Your task to perform on an android device: see sites visited before in the chrome app Image 0: 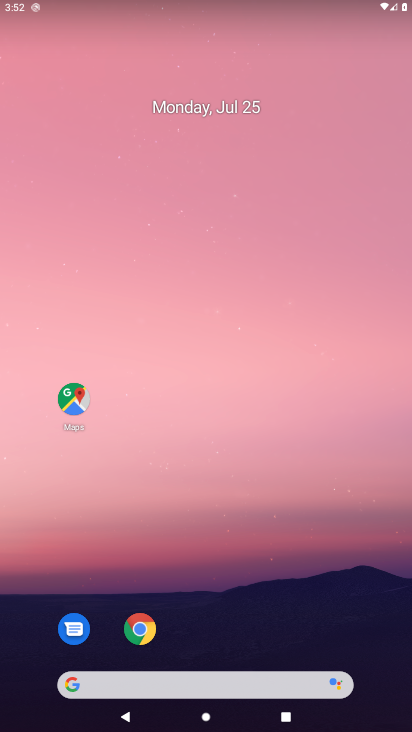
Step 0: click (132, 622)
Your task to perform on an android device: see sites visited before in the chrome app Image 1: 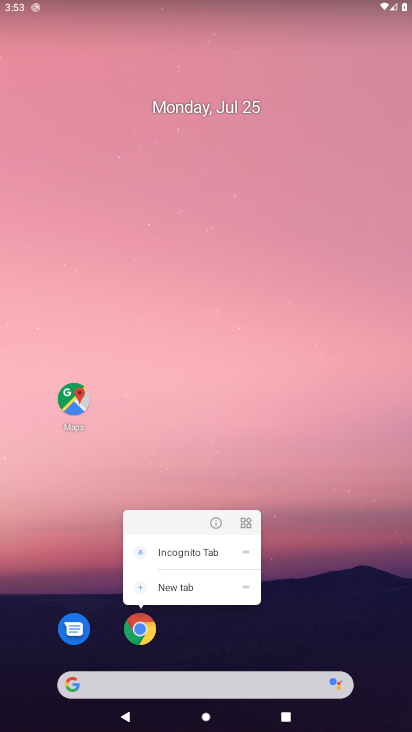
Step 1: click (162, 637)
Your task to perform on an android device: see sites visited before in the chrome app Image 2: 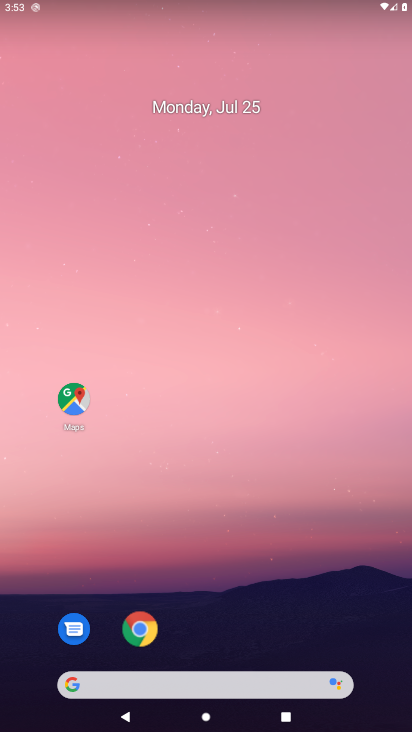
Step 2: click (151, 628)
Your task to perform on an android device: see sites visited before in the chrome app Image 3: 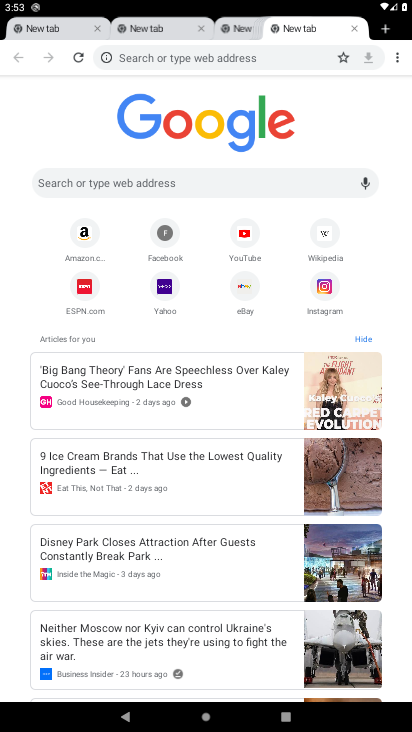
Step 3: click (399, 52)
Your task to perform on an android device: see sites visited before in the chrome app Image 4: 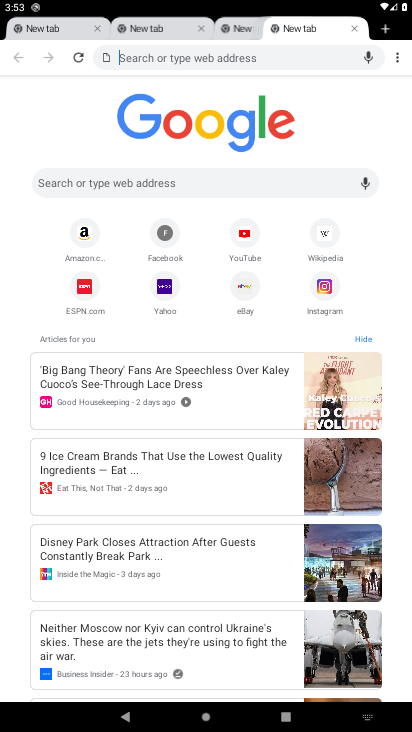
Step 4: click (398, 60)
Your task to perform on an android device: see sites visited before in the chrome app Image 5: 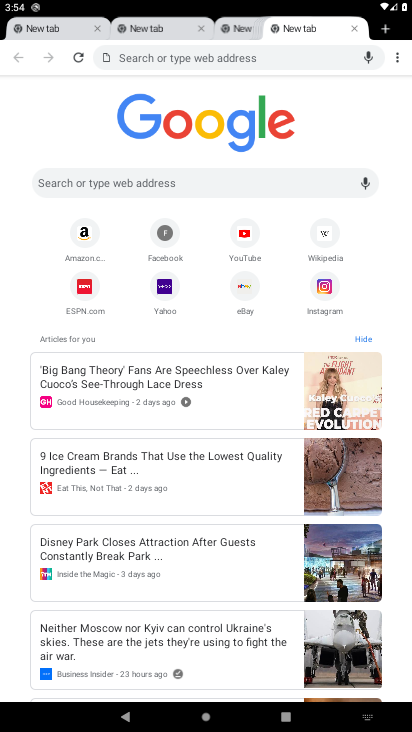
Step 5: task complete